Your task to perform on an android device: Open Youtube and go to the subscriptions tab Image 0: 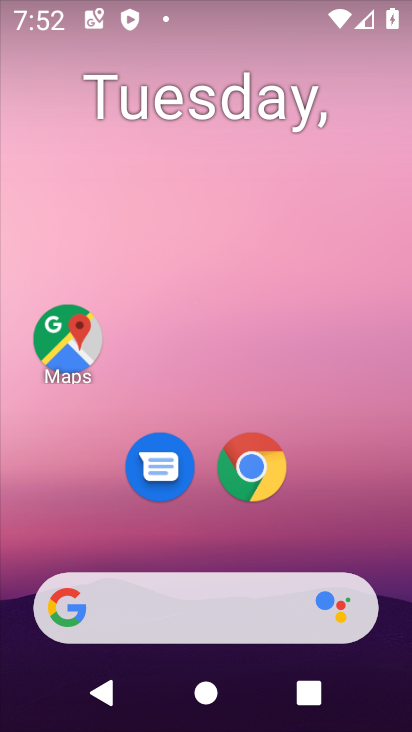
Step 0: drag from (391, 566) to (351, 72)
Your task to perform on an android device: Open Youtube and go to the subscriptions tab Image 1: 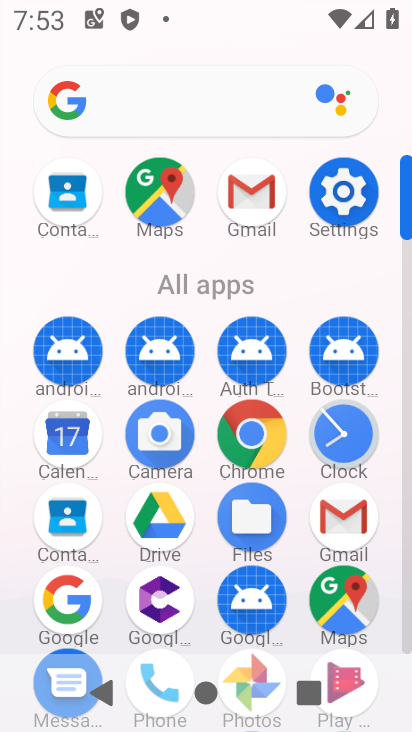
Step 1: click (403, 636)
Your task to perform on an android device: Open Youtube and go to the subscriptions tab Image 2: 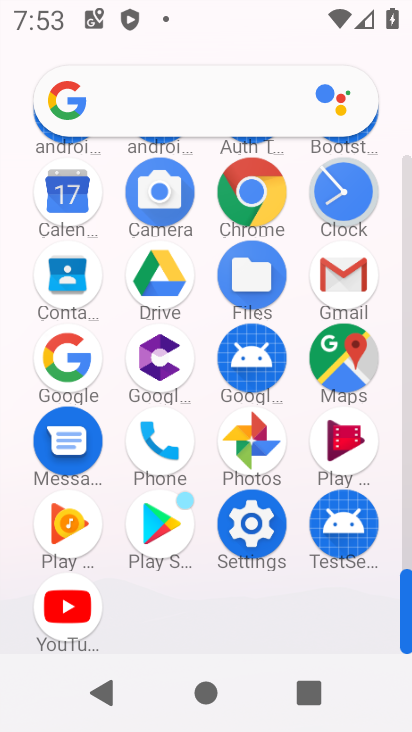
Step 2: click (78, 608)
Your task to perform on an android device: Open Youtube and go to the subscriptions tab Image 3: 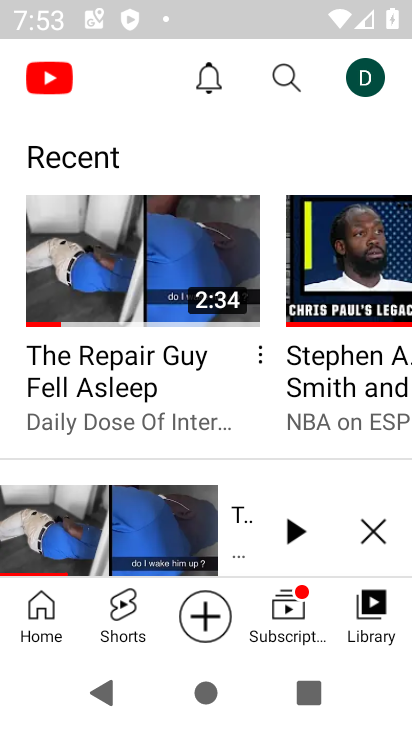
Step 3: click (288, 617)
Your task to perform on an android device: Open Youtube and go to the subscriptions tab Image 4: 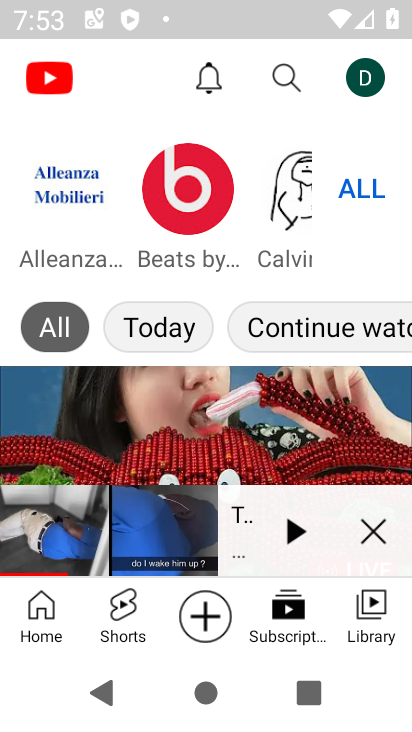
Step 4: task complete